Your task to perform on an android device: Open network settings Image 0: 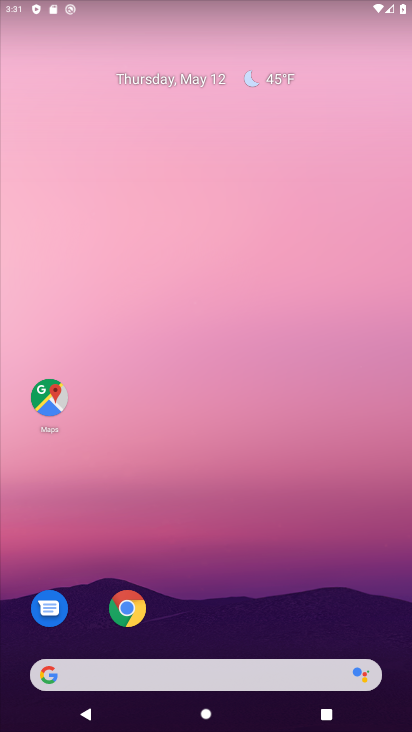
Step 0: drag from (203, 608) to (233, 142)
Your task to perform on an android device: Open network settings Image 1: 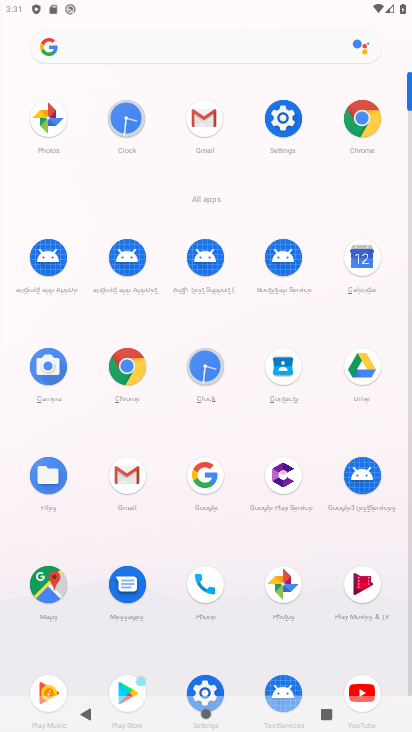
Step 1: click (286, 124)
Your task to perform on an android device: Open network settings Image 2: 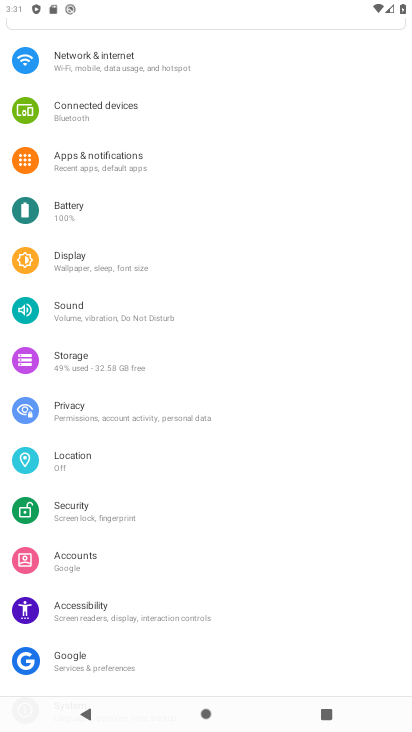
Step 2: click (150, 80)
Your task to perform on an android device: Open network settings Image 3: 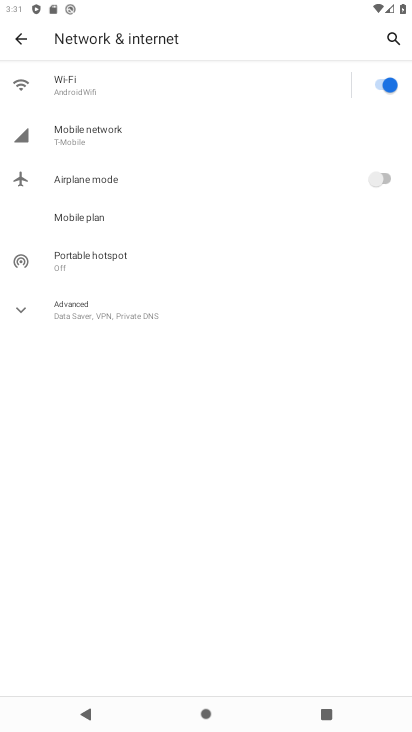
Step 3: task complete